Your task to perform on an android device: turn on sleep mode Image 0: 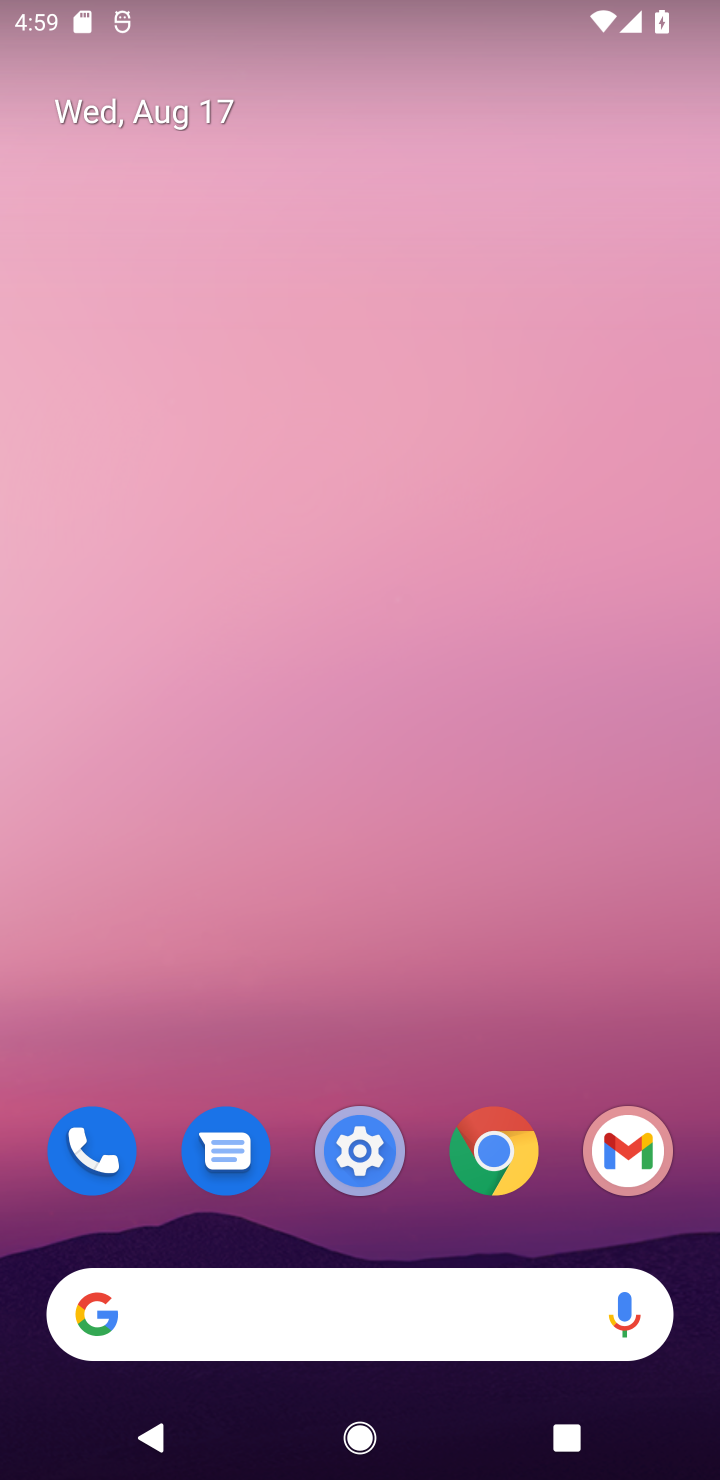
Step 0: click (395, 1187)
Your task to perform on an android device: turn on sleep mode Image 1: 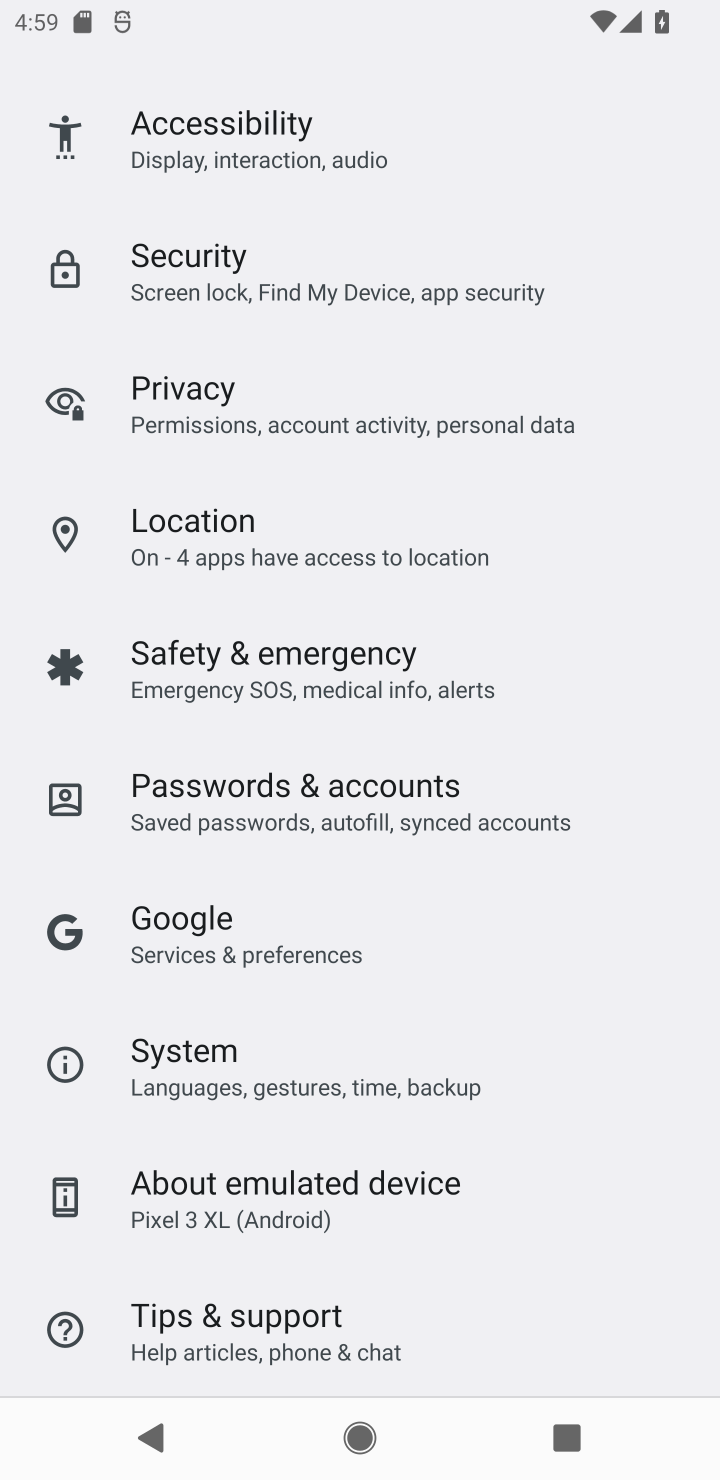
Step 1: task complete